Your task to perform on an android device: delete location history Image 0: 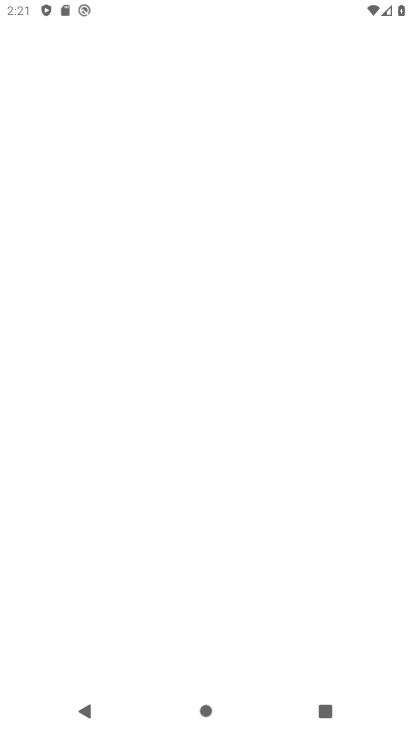
Step 0: click (192, 591)
Your task to perform on an android device: delete location history Image 1: 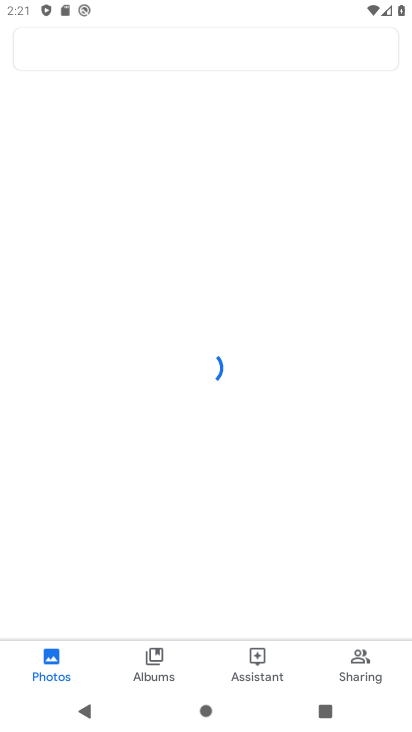
Step 1: press home button
Your task to perform on an android device: delete location history Image 2: 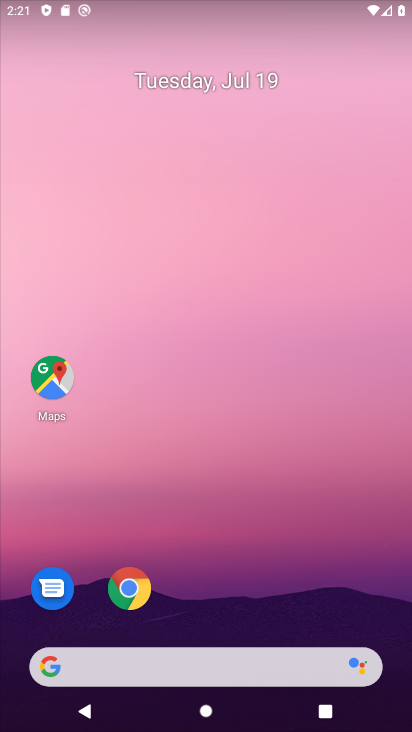
Step 2: drag from (210, 577) to (215, 13)
Your task to perform on an android device: delete location history Image 3: 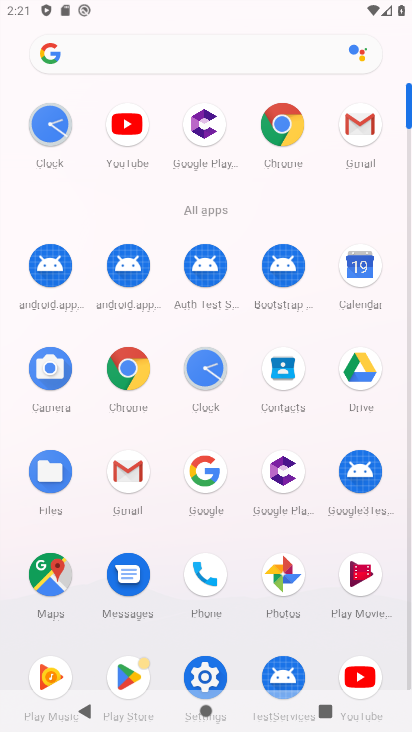
Step 3: click (211, 674)
Your task to perform on an android device: delete location history Image 4: 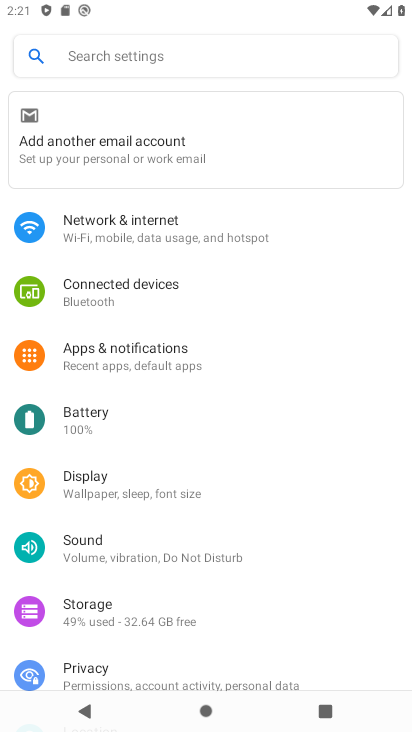
Step 4: drag from (172, 586) to (195, 302)
Your task to perform on an android device: delete location history Image 5: 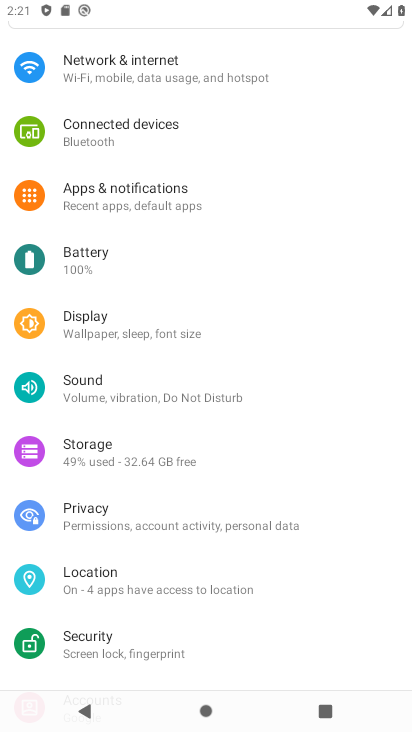
Step 5: click (108, 580)
Your task to perform on an android device: delete location history Image 6: 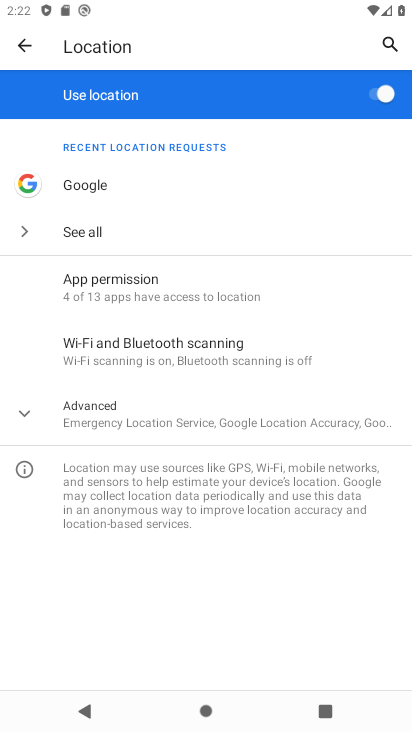
Step 6: click (81, 416)
Your task to perform on an android device: delete location history Image 7: 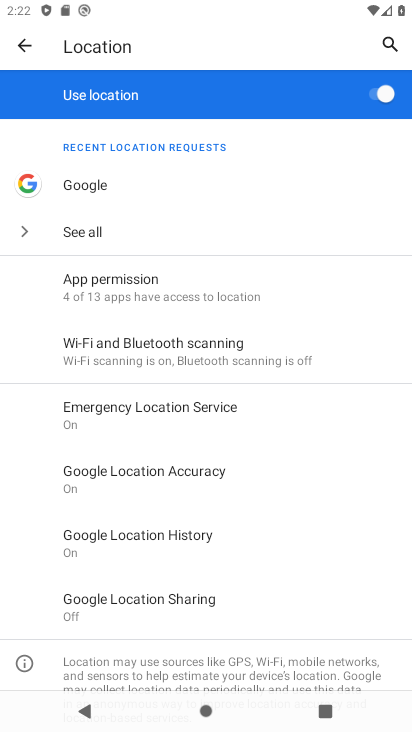
Step 7: click (192, 535)
Your task to perform on an android device: delete location history Image 8: 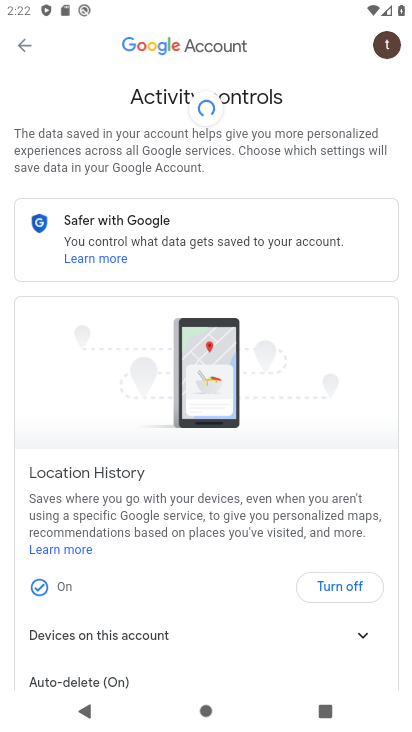
Step 8: drag from (235, 609) to (243, 307)
Your task to perform on an android device: delete location history Image 9: 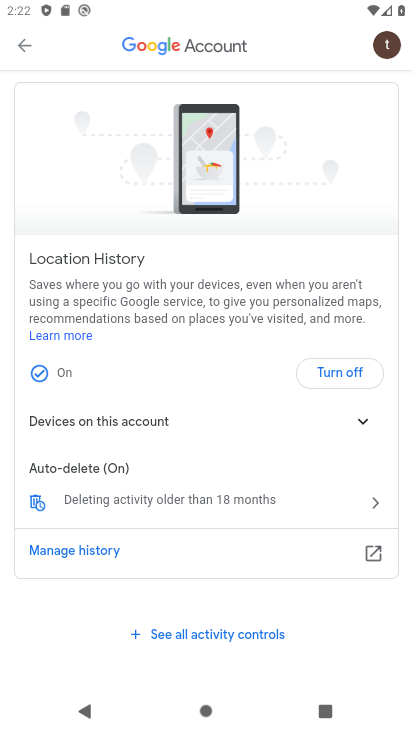
Step 9: click (46, 548)
Your task to perform on an android device: delete location history Image 10: 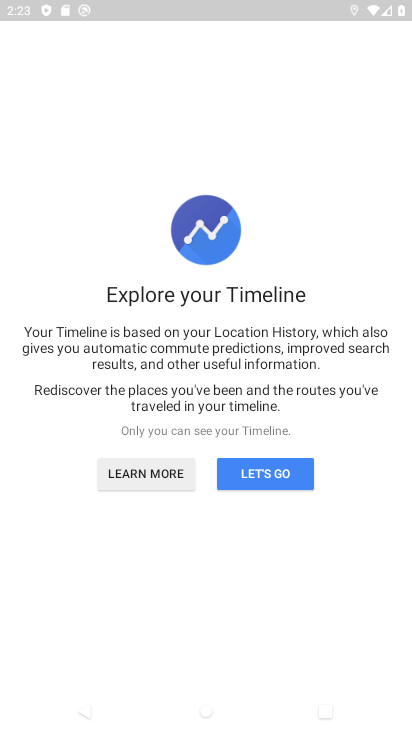
Step 10: click (284, 464)
Your task to perform on an android device: delete location history Image 11: 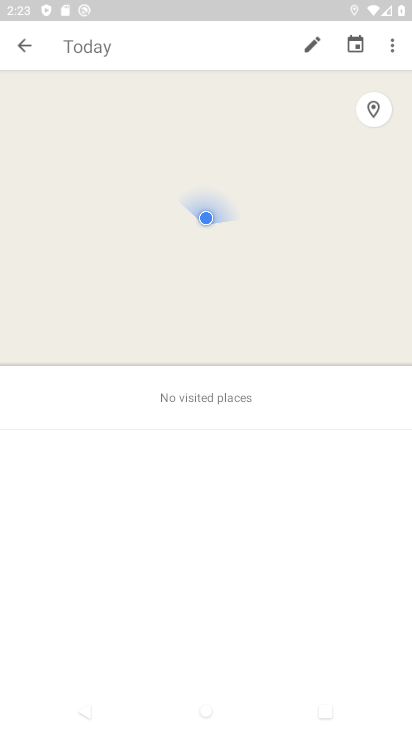
Step 11: click (394, 42)
Your task to perform on an android device: delete location history Image 12: 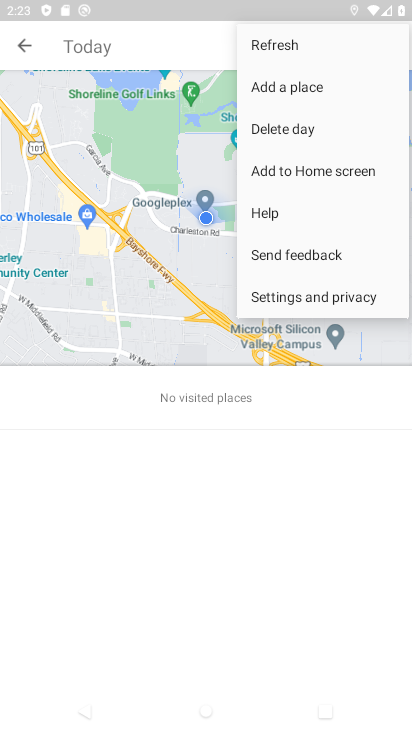
Step 12: click (278, 302)
Your task to perform on an android device: delete location history Image 13: 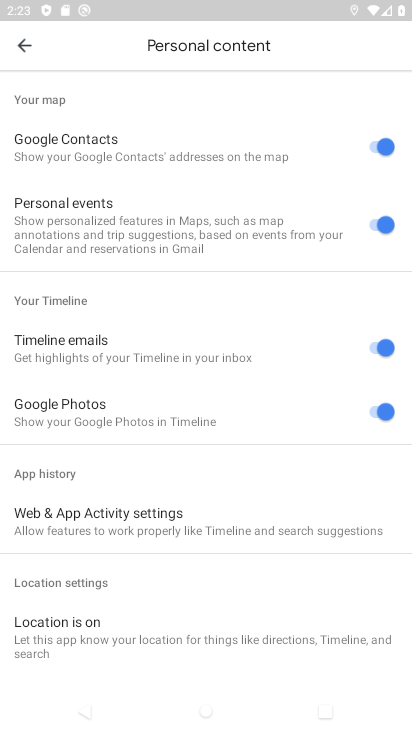
Step 13: drag from (133, 625) to (126, 291)
Your task to perform on an android device: delete location history Image 14: 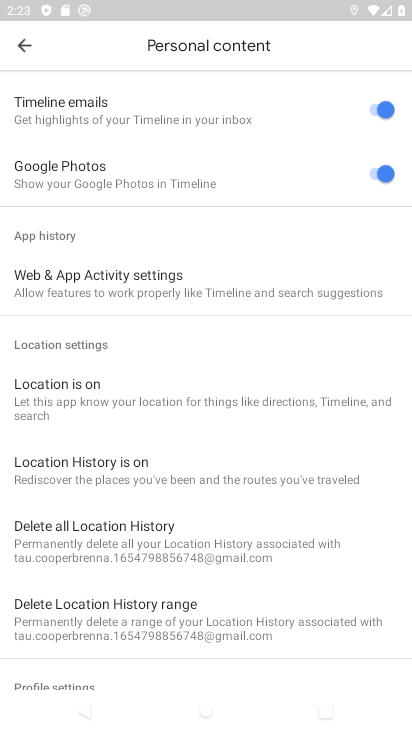
Step 14: click (122, 534)
Your task to perform on an android device: delete location history Image 15: 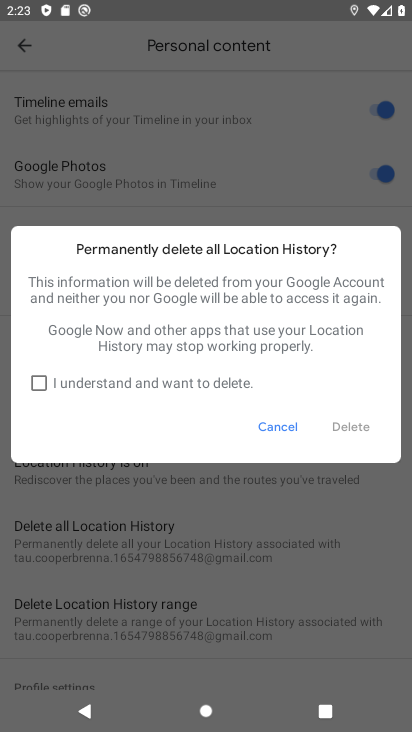
Step 15: click (39, 389)
Your task to perform on an android device: delete location history Image 16: 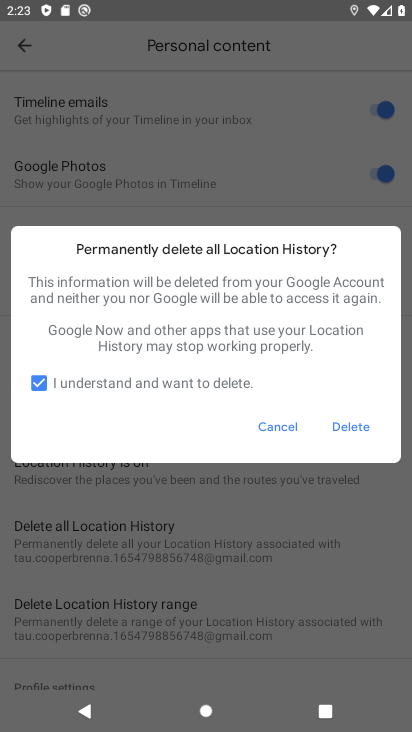
Step 16: click (361, 432)
Your task to perform on an android device: delete location history Image 17: 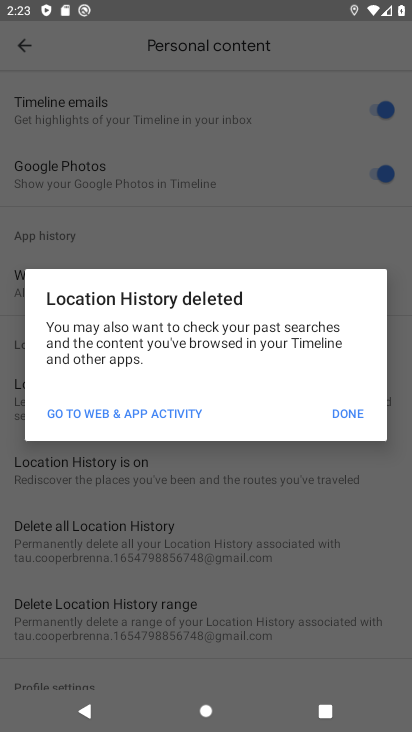
Step 17: click (345, 409)
Your task to perform on an android device: delete location history Image 18: 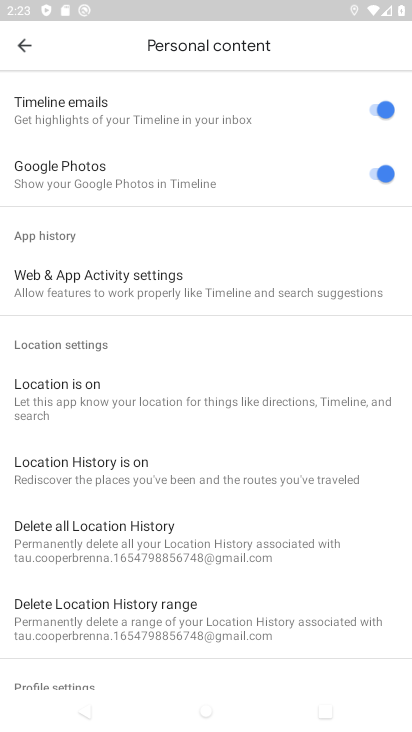
Step 18: task complete